Your task to perform on an android device: see tabs open on other devices in the chrome app Image 0: 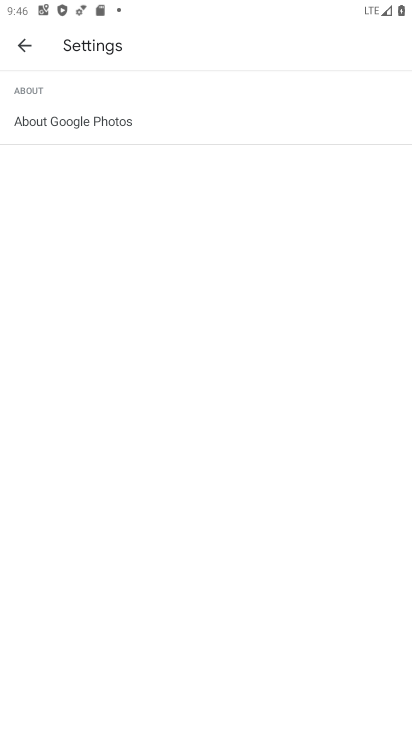
Step 0: press back button
Your task to perform on an android device: see tabs open on other devices in the chrome app Image 1: 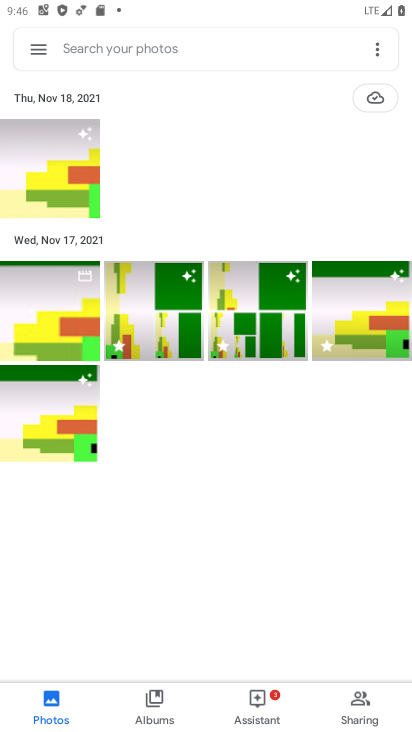
Step 1: press back button
Your task to perform on an android device: see tabs open on other devices in the chrome app Image 2: 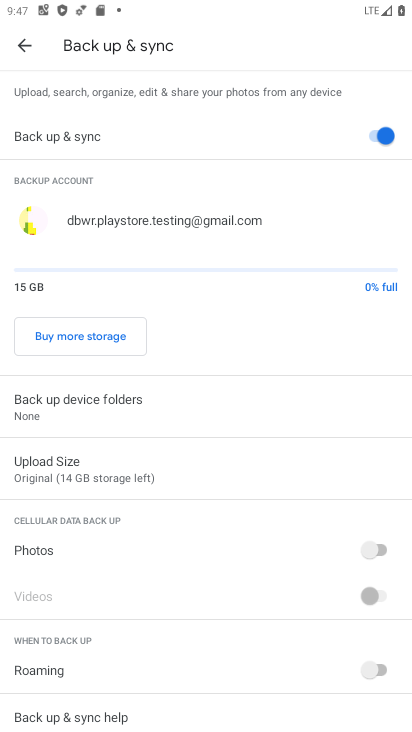
Step 2: press home button
Your task to perform on an android device: see tabs open on other devices in the chrome app Image 3: 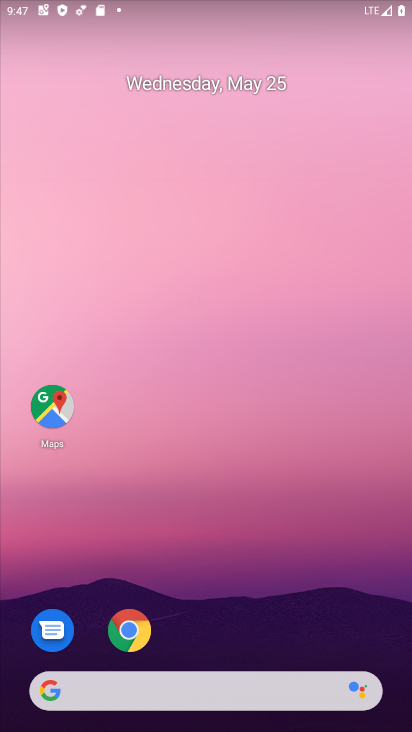
Step 3: click (132, 629)
Your task to perform on an android device: see tabs open on other devices in the chrome app Image 4: 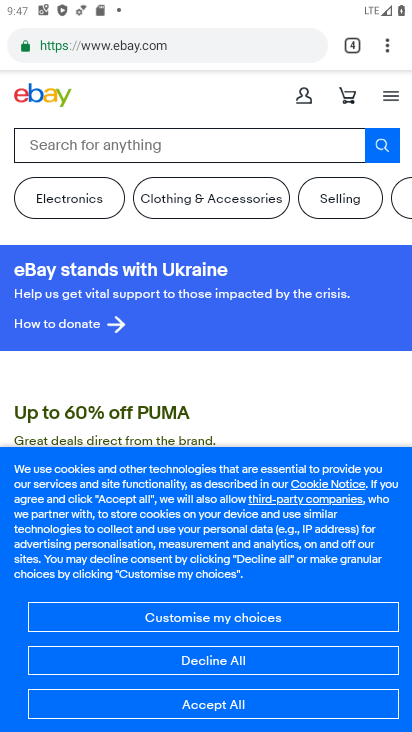
Step 4: task complete